Your task to perform on an android device: turn on the 12-hour format for clock Image 0: 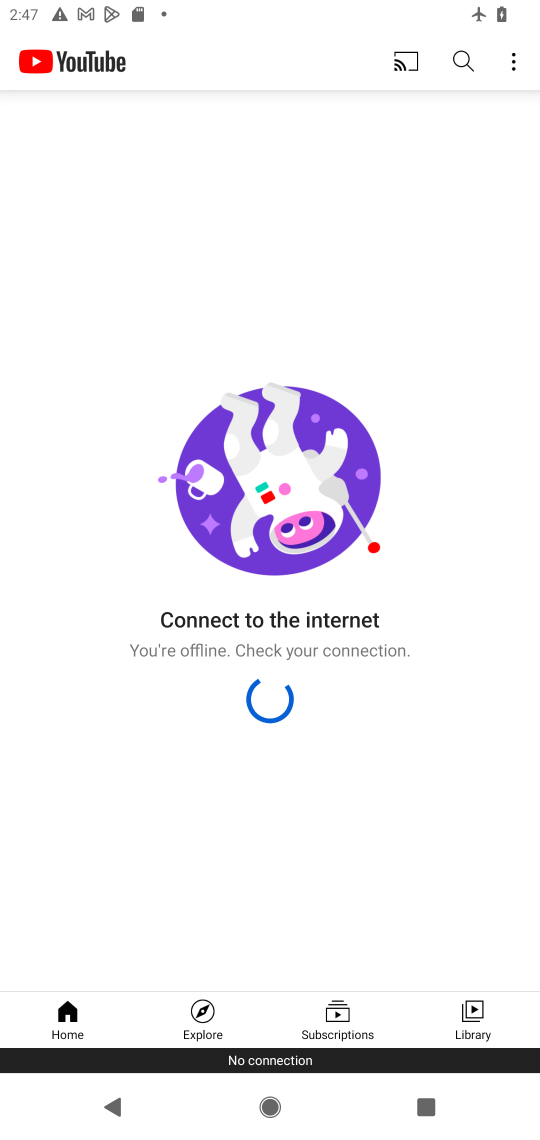
Step 0: press home button
Your task to perform on an android device: turn on the 12-hour format for clock Image 1: 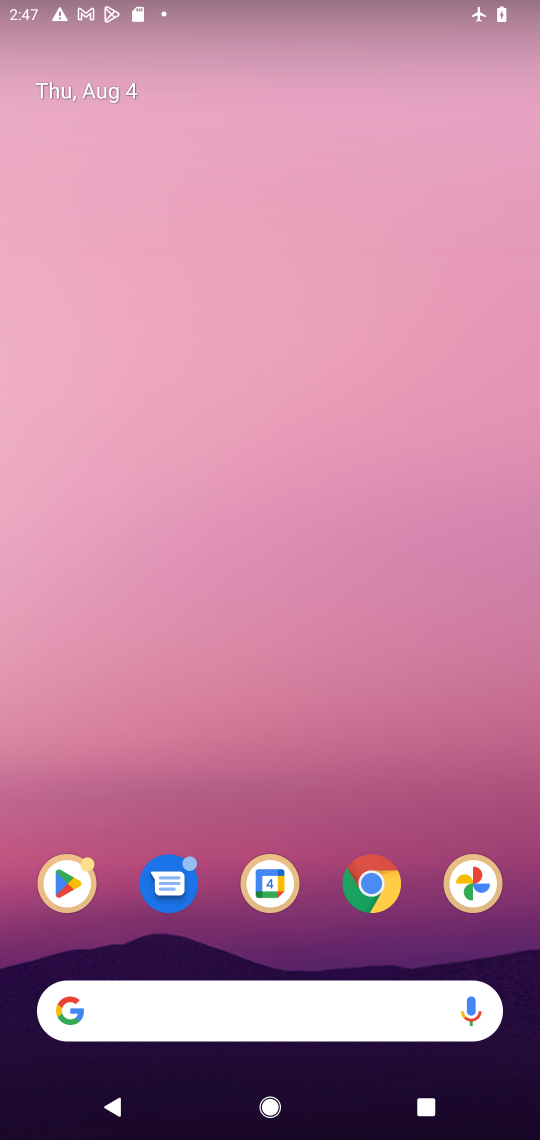
Step 1: drag from (213, 966) to (213, 356)
Your task to perform on an android device: turn on the 12-hour format for clock Image 2: 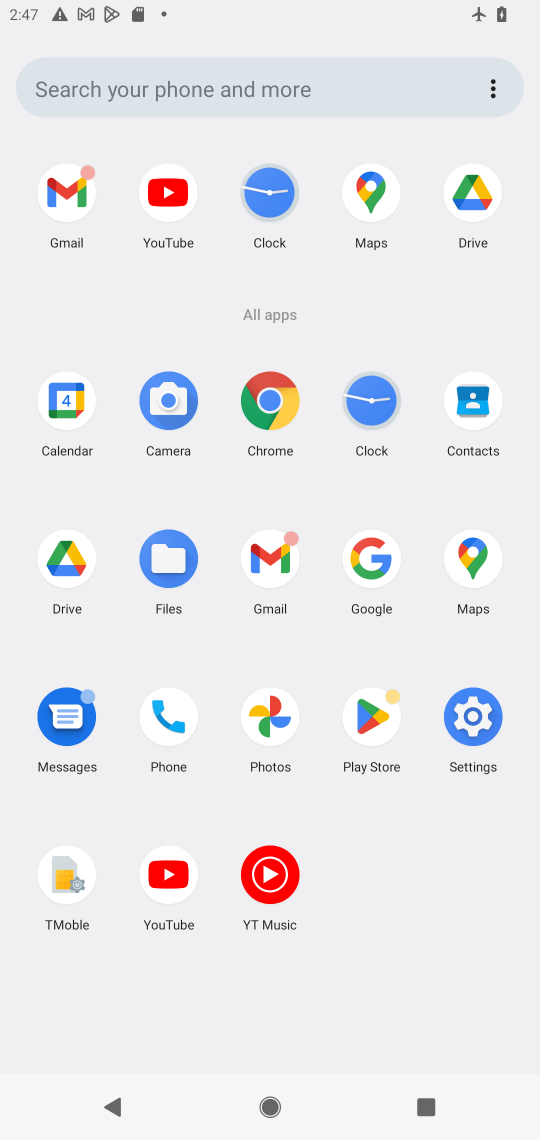
Step 2: click (371, 401)
Your task to perform on an android device: turn on the 12-hour format for clock Image 3: 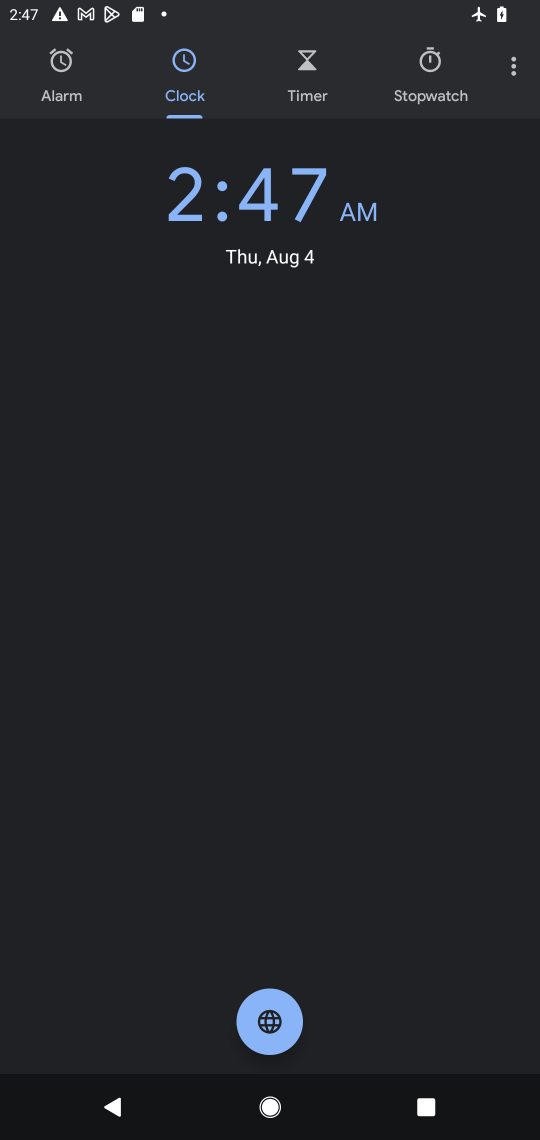
Step 3: click (513, 80)
Your task to perform on an android device: turn on the 12-hour format for clock Image 4: 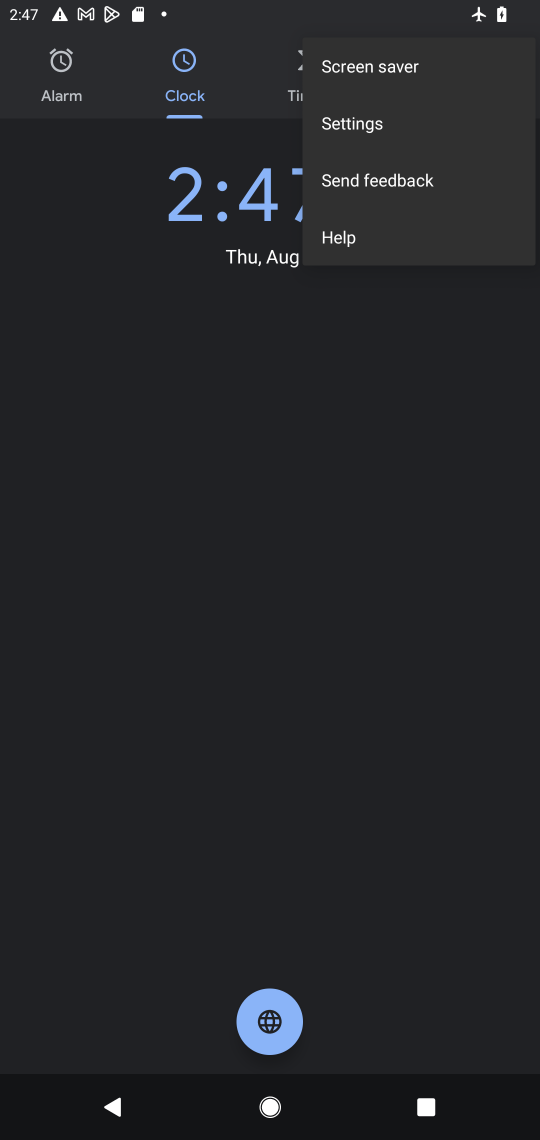
Step 4: click (364, 119)
Your task to perform on an android device: turn on the 12-hour format for clock Image 5: 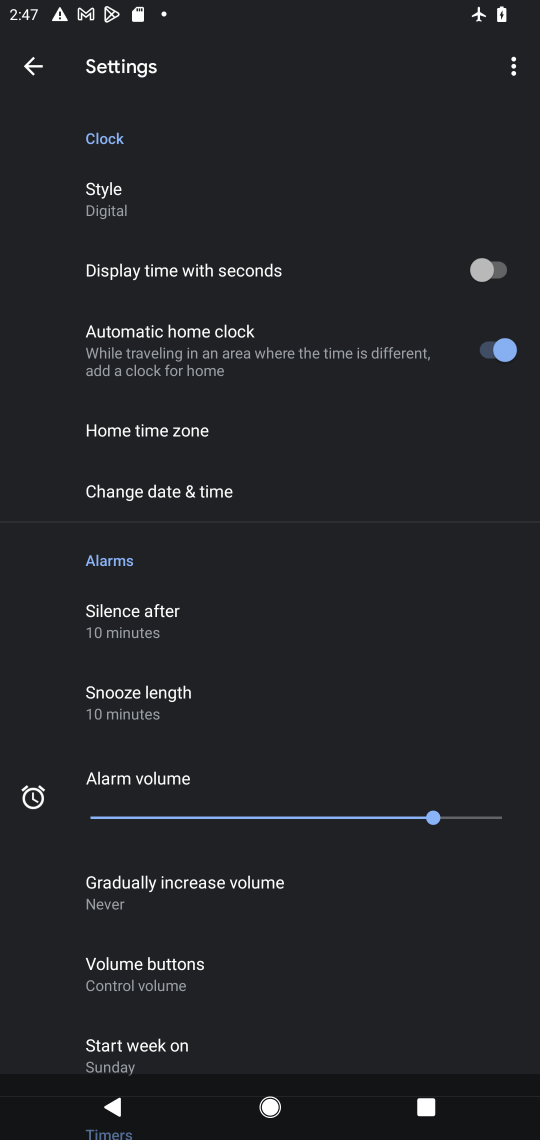
Step 5: click (155, 492)
Your task to perform on an android device: turn on the 12-hour format for clock Image 6: 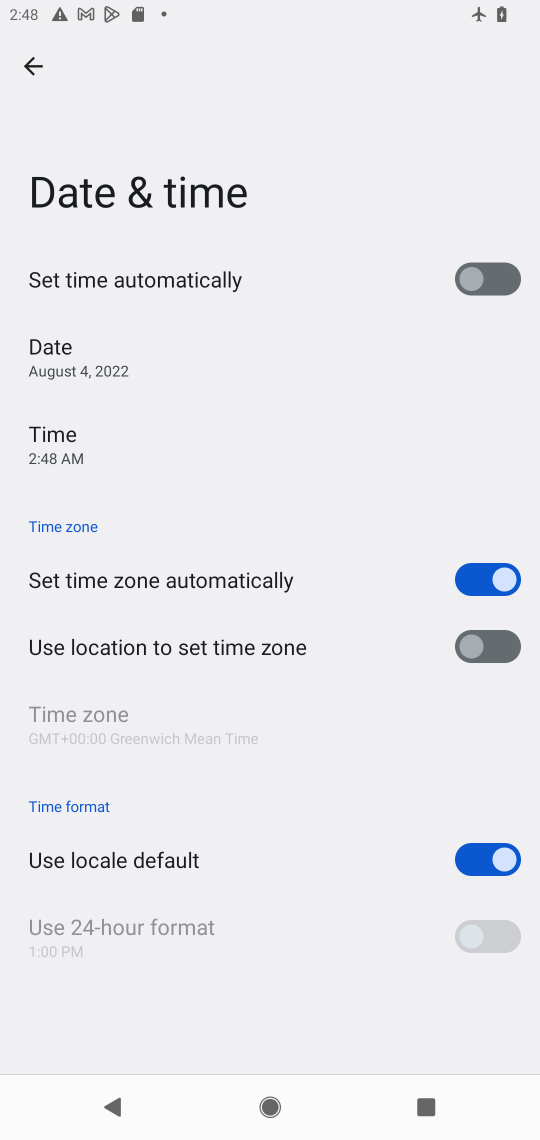
Step 6: task complete